Your task to perform on an android device: check battery use Image 0: 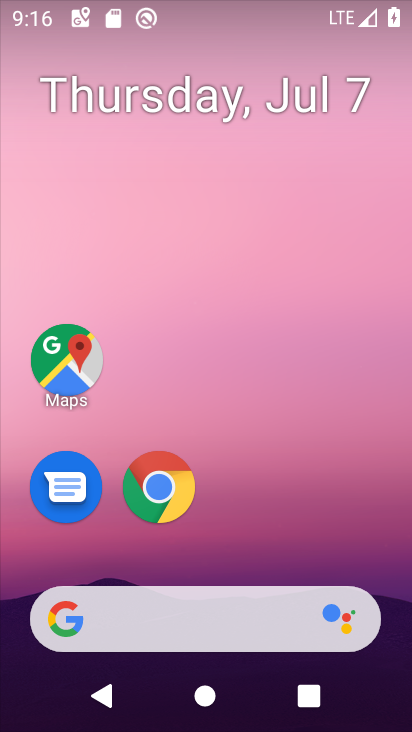
Step 0: drag from (351, 524) to (345, 97)
Your task to perform on an android device: check battery use Image 1: 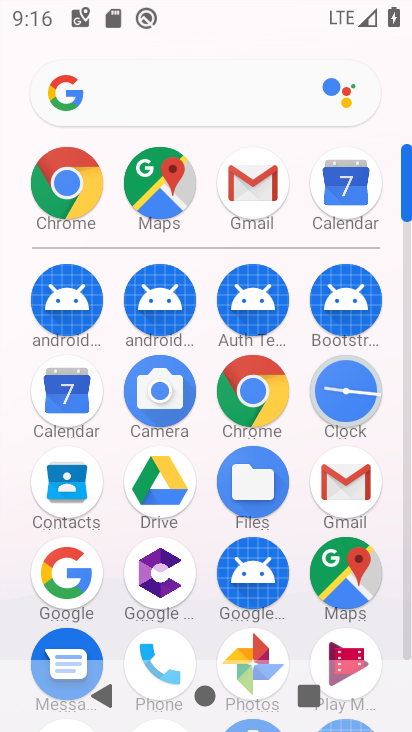
Step 1: drag from (388, 431) to (393, 164)
Your task to perform on an android device: check battery use Image 2: 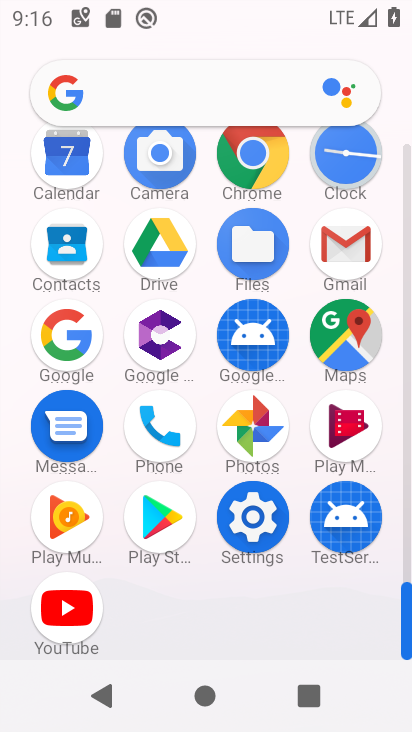
Step 2: click (248, 520)
Your task to perform on an android device: check battery use Image 3: 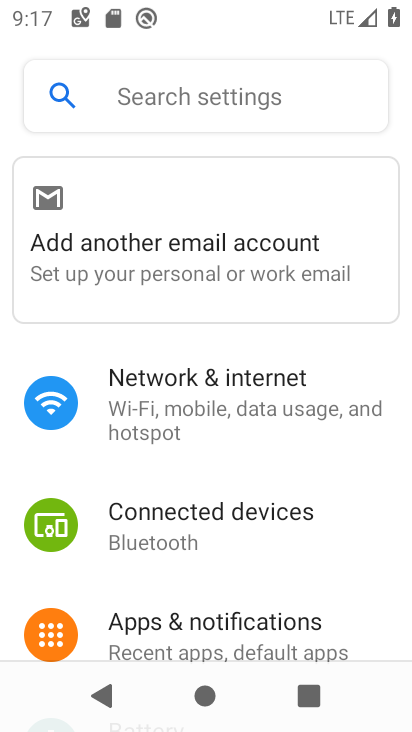
Step 3: drag from (362, 534) to (364, 435)
Your task to perform on an android device: check battery use Image 4: 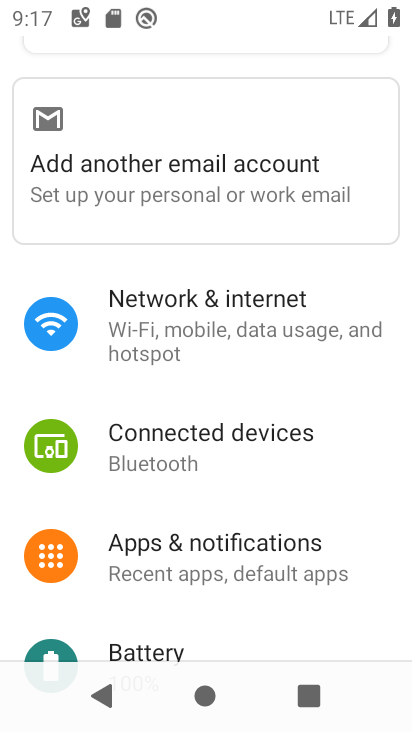
Step 4: drag from (367, 559) to (370, 475)
Your task to perform on an android device: check battery use Image 5: 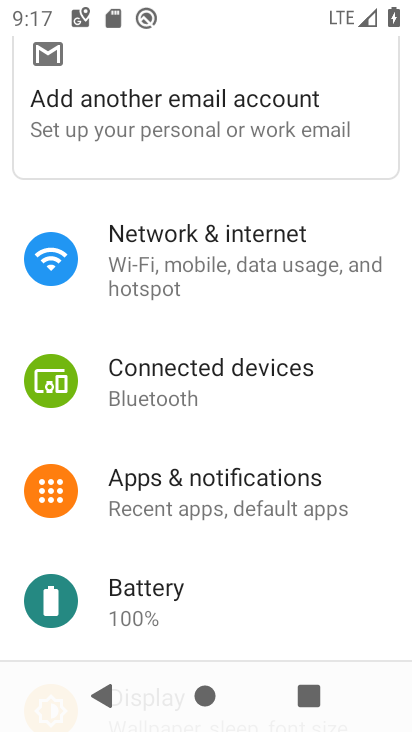
Step 5: drag from (372, 586) to (374, 483)
Your task to perform on an android device: check battery use Image 6: 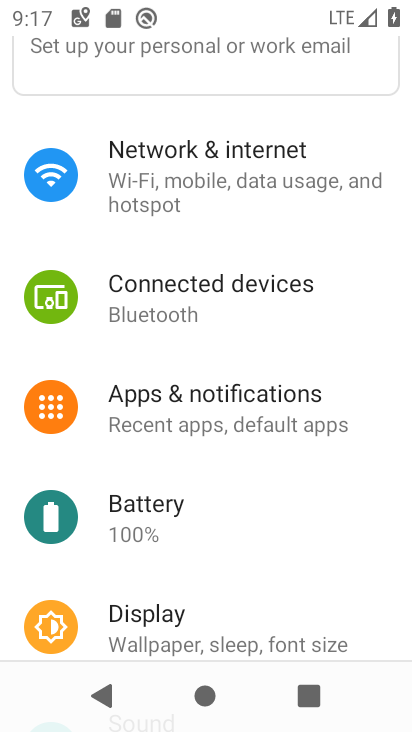
Step 6: drag from (365, 566) to (359, 410)
Your task to perform on an android device: check battery use Image 7: 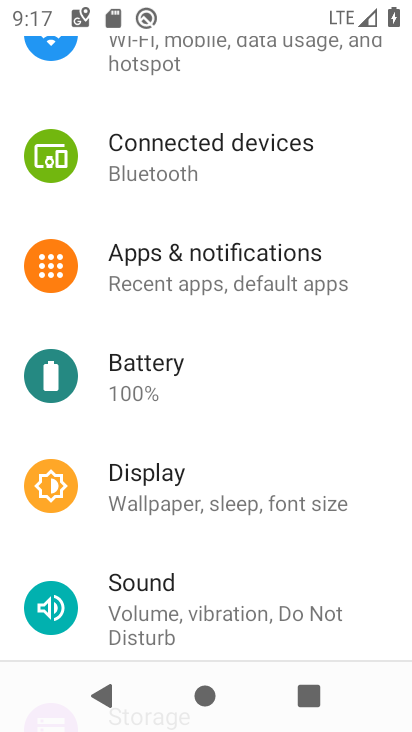
Step 7: drag from (358, 581) to (367, 466)
Your task to perform on an android device: check battery use Image 8: 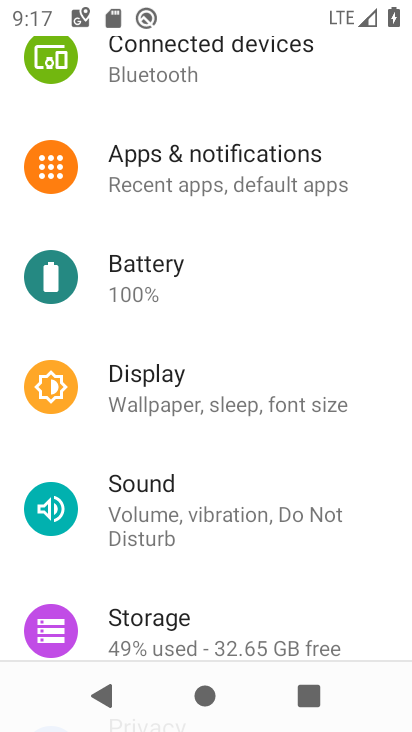
Step 8: click (184, 286)
Your task to perform on an android device: check battery use Image 9: 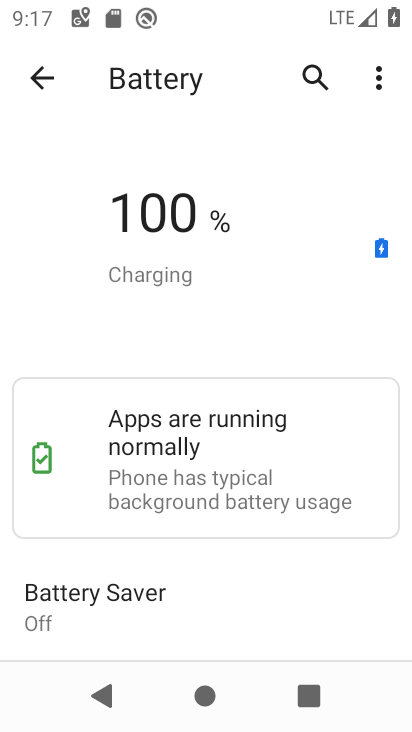
Step 9: click (377, 88)
Your task to perform on an android device: check battery use Image 10: 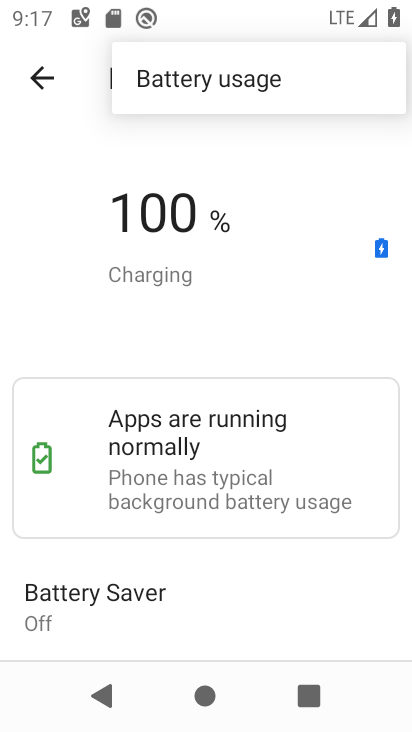
Step 10: click (302, 76)
Your task to perform on an android device: check battery use Image 11: 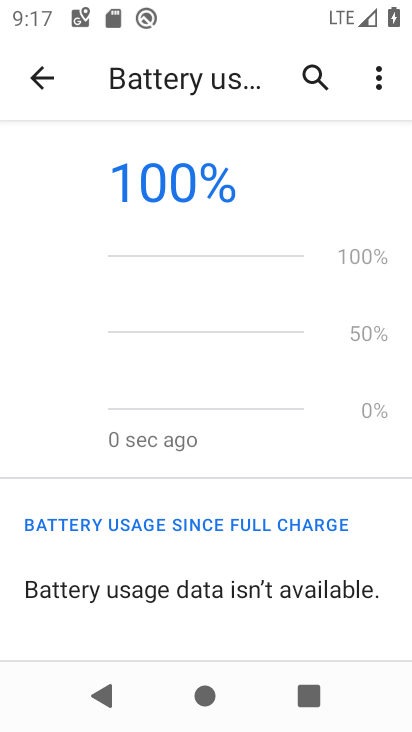
Step 11: task complete